Your task to perform on an android device: Open Google Chrome and open the bookmarks view Image 0: 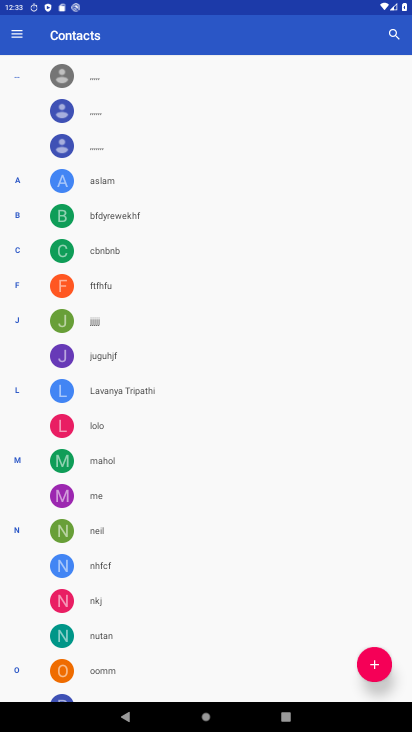
Step 0: press home button
Your task to perform on an android device: Open Google Chrome and open the bookmarks view Image 1: 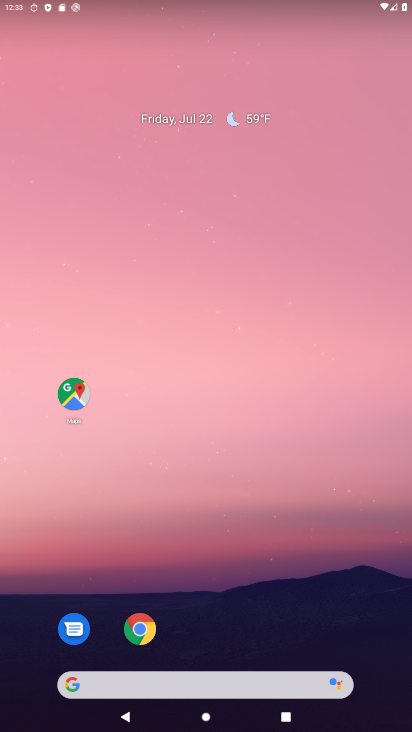
Step 1: drag from (226, 664) to (261, 164)
Your task to perform on an android device: Open Google Chrome and open the bookmarks view Image 2: 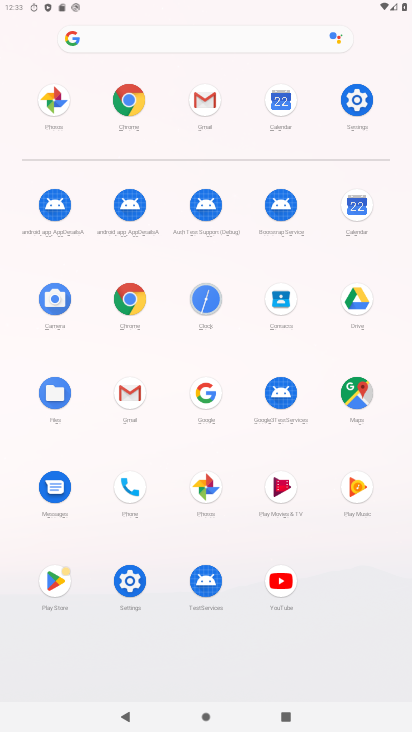
Step 2: click (130, 310)
Your task to perform on an android device: Open Google Chrome and open the bookmarks view Image 3: 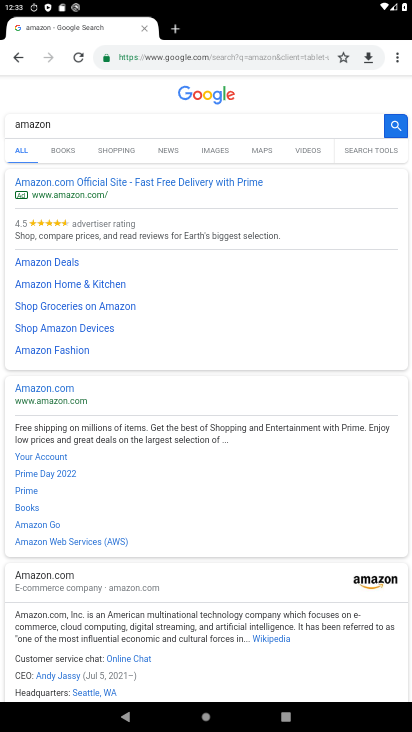
Step 3: task complete